Your task to perform on an android device: Go to Yahoo.com Image 0: 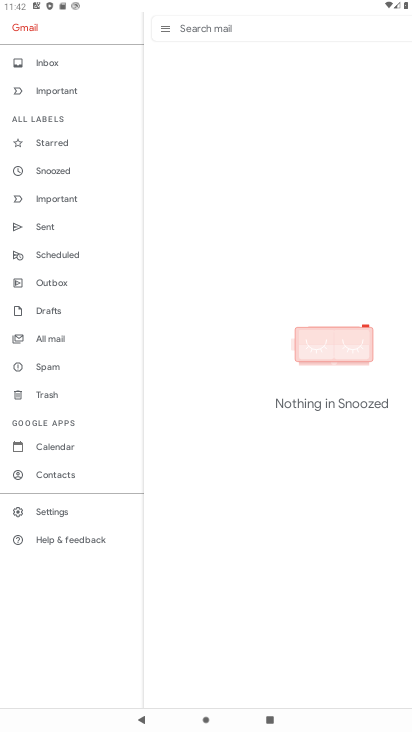
Step 0: press home button
Your task to perform on an android device: Go to Yahoo.com Image 1: 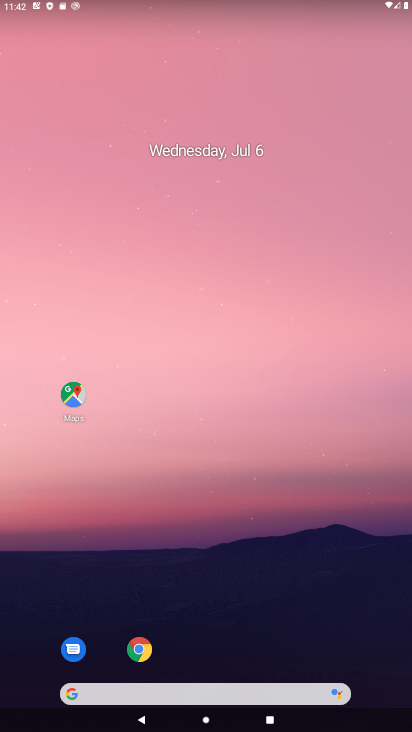
Step 1: click (119, 689)
Your task to perform on an android device: Go to Yahoo.com Image 2: 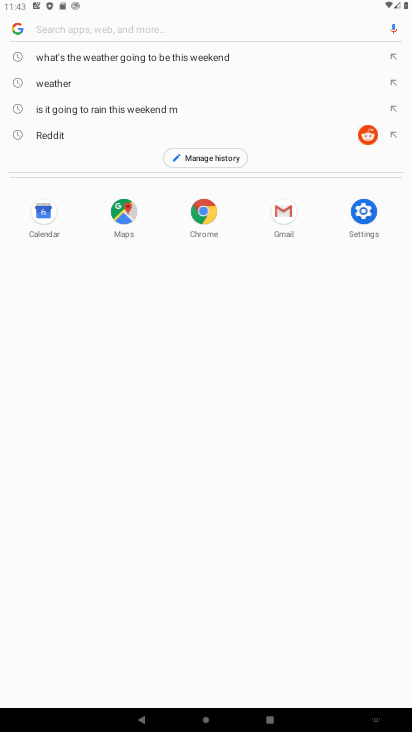
Step 2: click (53, 25)
Your task to perform on an android device: Go to Yahoo.com Image 3: 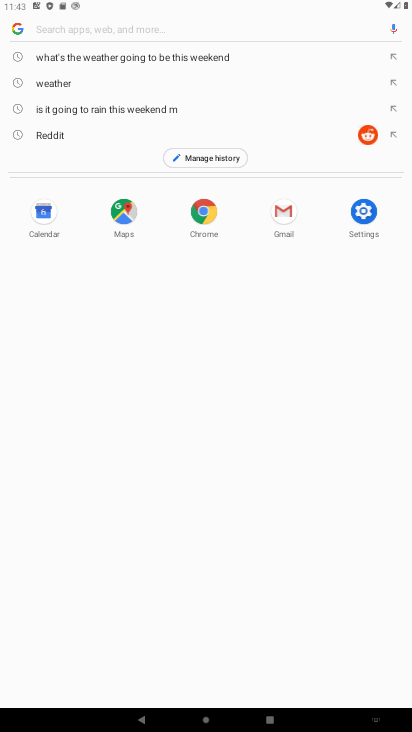
Step 3: type "Yahoo.com"
Your task to perform on an android device: Go to Yahoo.com Image 4: 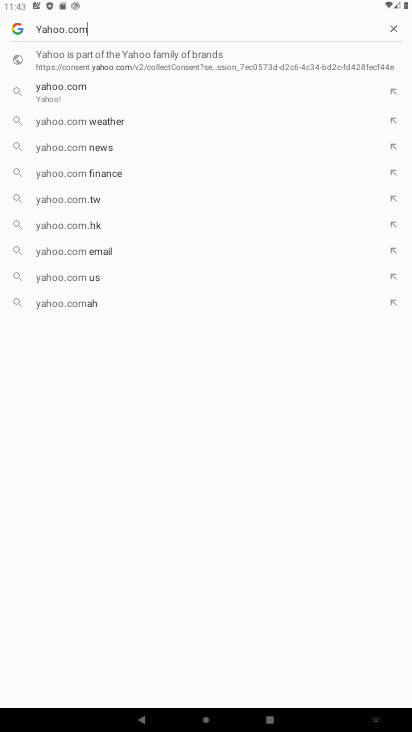
Step 4: click (102, 27)
Your task to perform on an android device: Go to Yahoo.com Image 5: 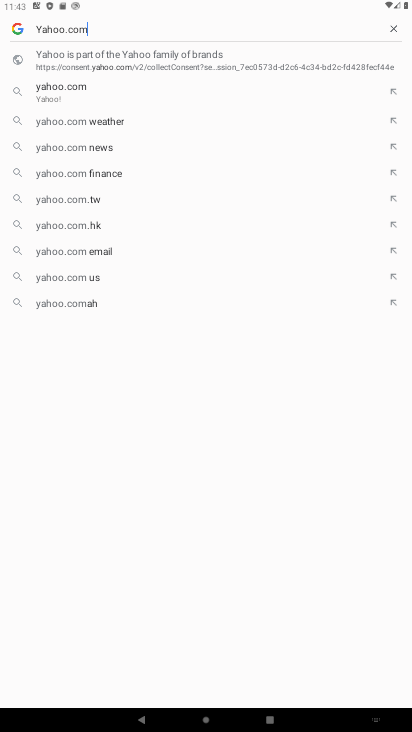
Step 5: click (102, 31)
Your task to perform on an android device: Go to Yahoo.com Image 6: 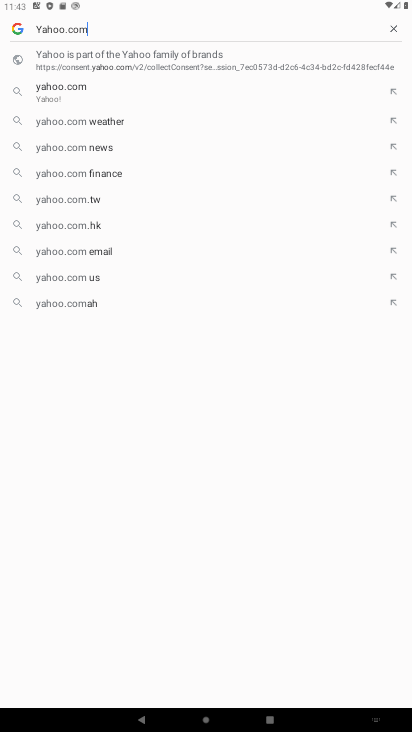
Step 6: type ""
Your task to perform on an android device: Go to Yahoo.com Image 7: 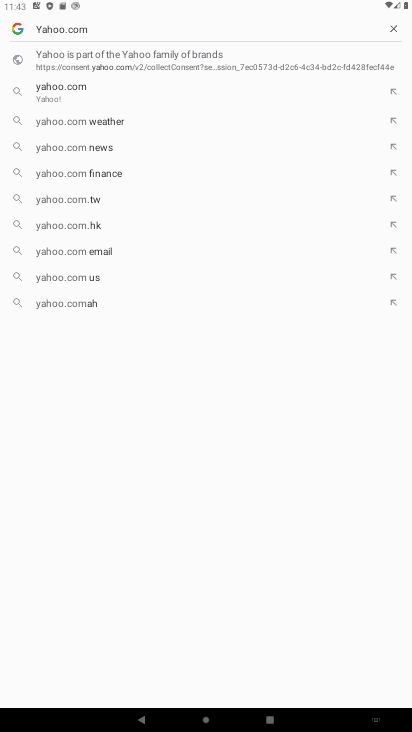
Step 7: type ""
Your task to perform on an android device: Go to Yahoo.com Image 8: 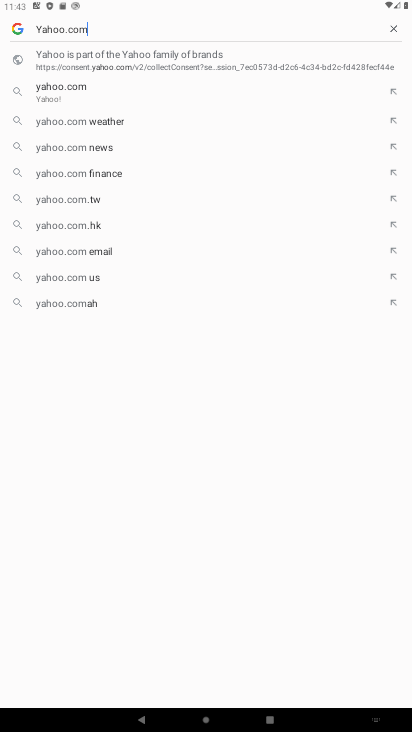
Step 8: click (71, 89)
Your task to perform on an android device: Go to Yahoo.com Image 9: 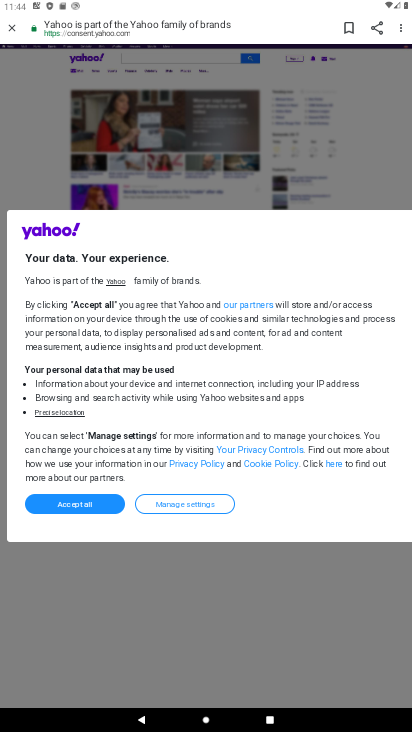
Step 9: task complete